Your task to perform on an android device: Open Google Maps and go to "Timeline" Image 0: 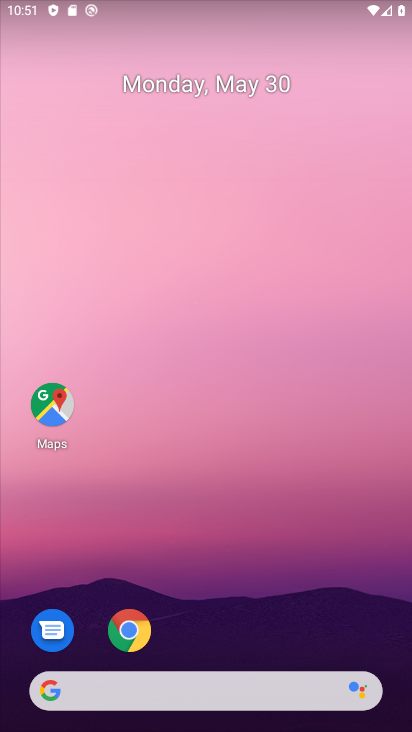
Step 0: click (52, 401)
Your task to perform on an android device: Open Google Maps and go to "Timeline" Image 1: 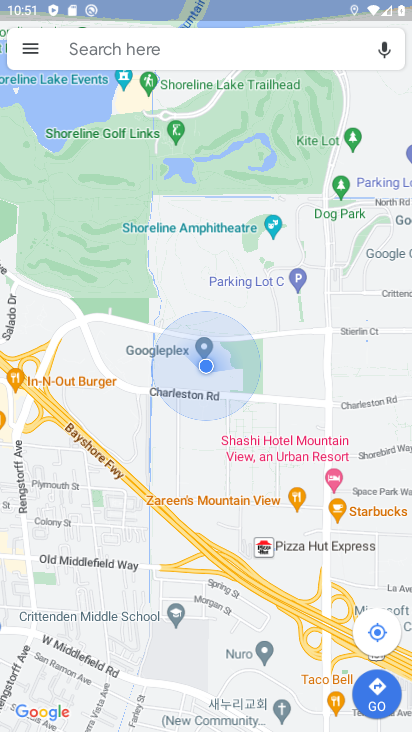
Step 1: click (28, 45)
Your task to perform on an android device: Open Google Maps and go to "Timeline" Image 2: 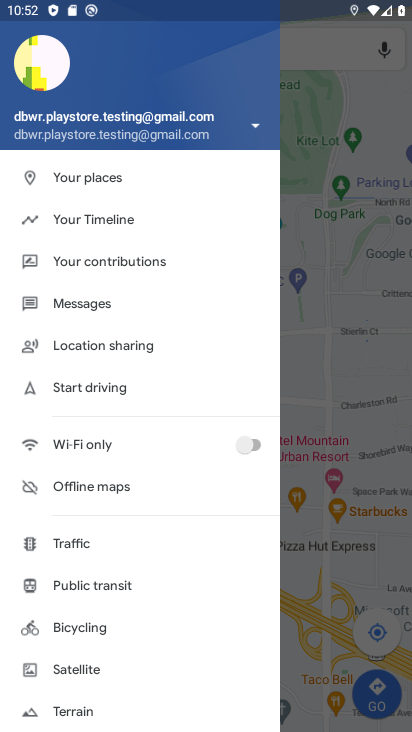
Step 2: click (96, 220)
Your task to perform on an android device: Open Google Maps and go to "Timeline" Image 3: 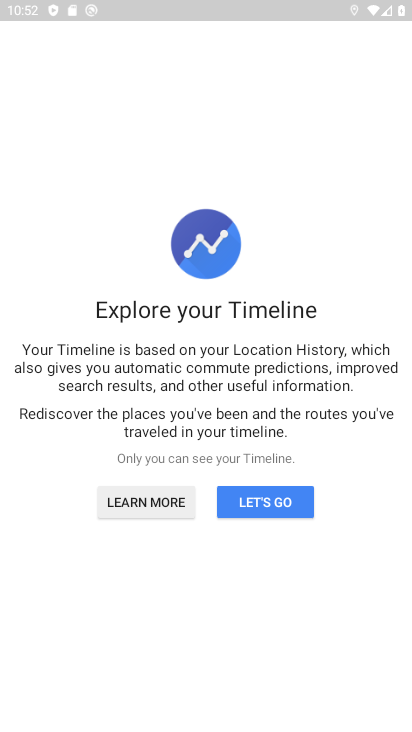
Step 3: task complete